Your task to perform on an android device: Toggle the flashlight Image 0: 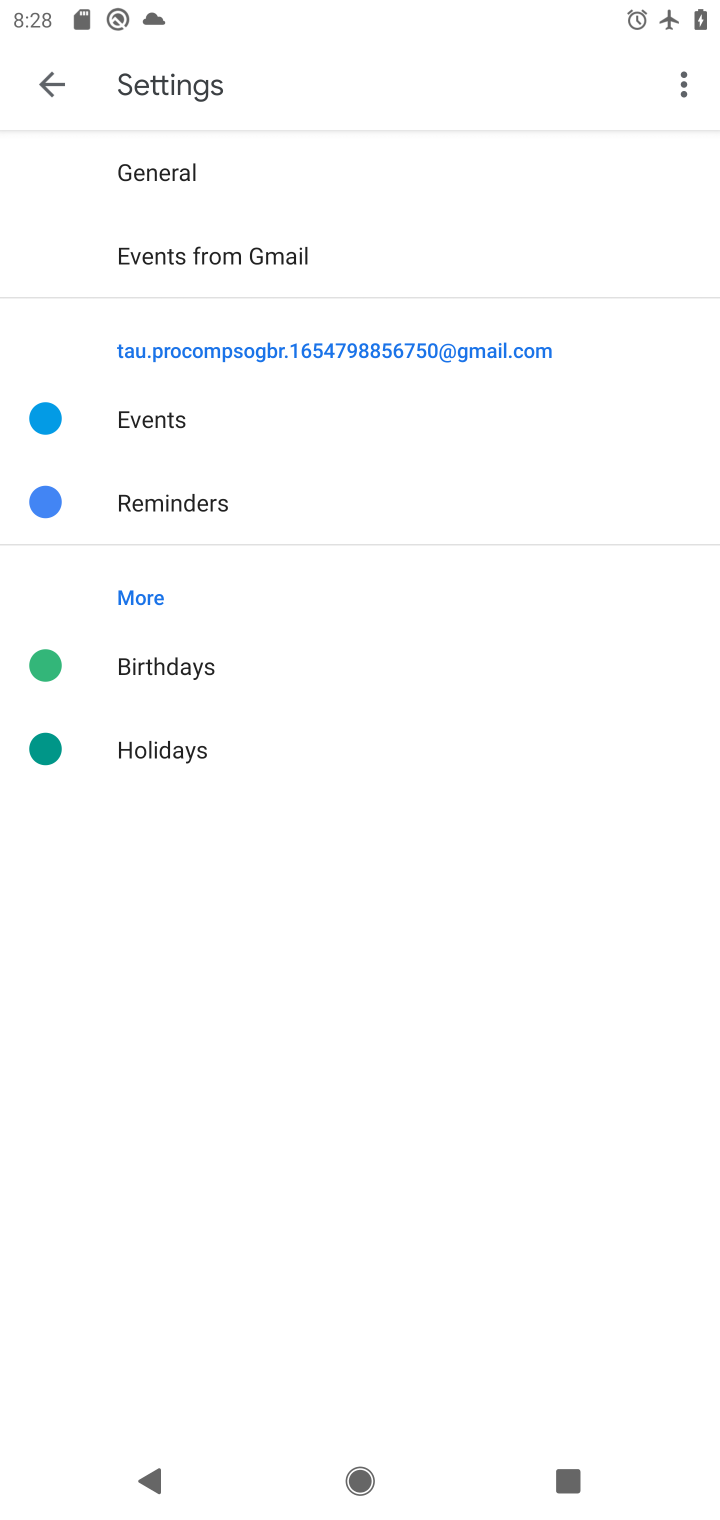
Step 0: press home button
Your task to perform on an android device: Toggle the flashlight Image 1: 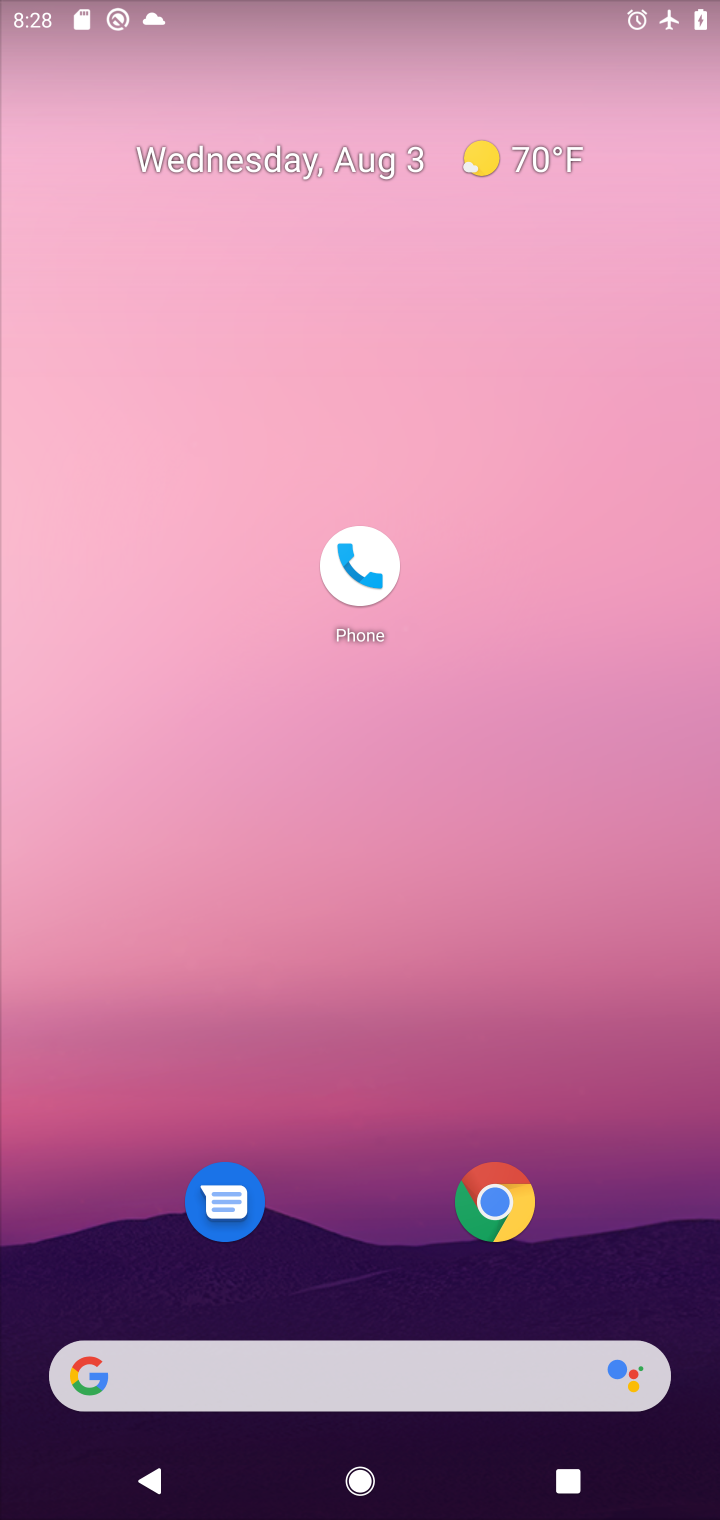
Step 1: drag from (329, 1389) to (439, 43)
Your task to perform on an android device: Toggle the flashlight Image 2: 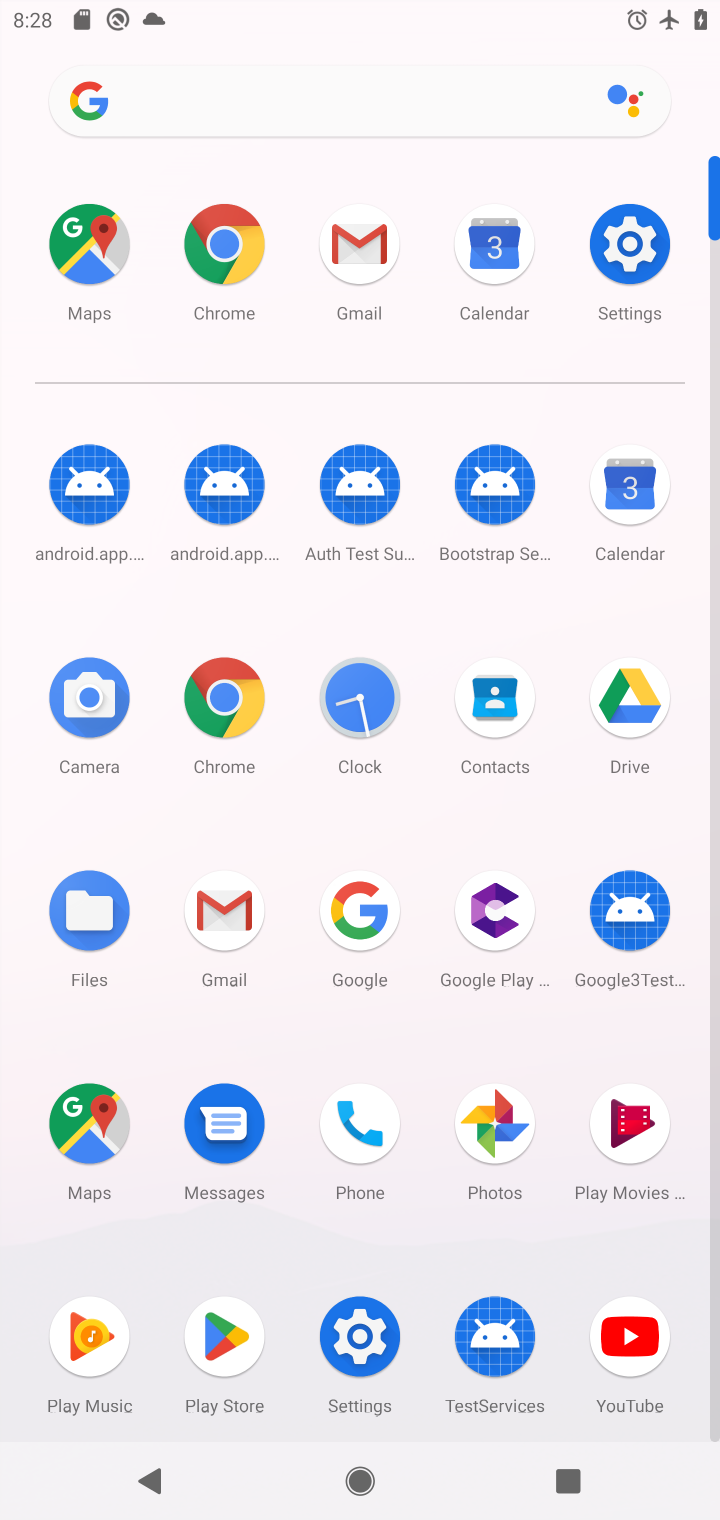
Step 2: click (627, 245)
Your task to perform on an android device: Toggle the flashlight Image 3: 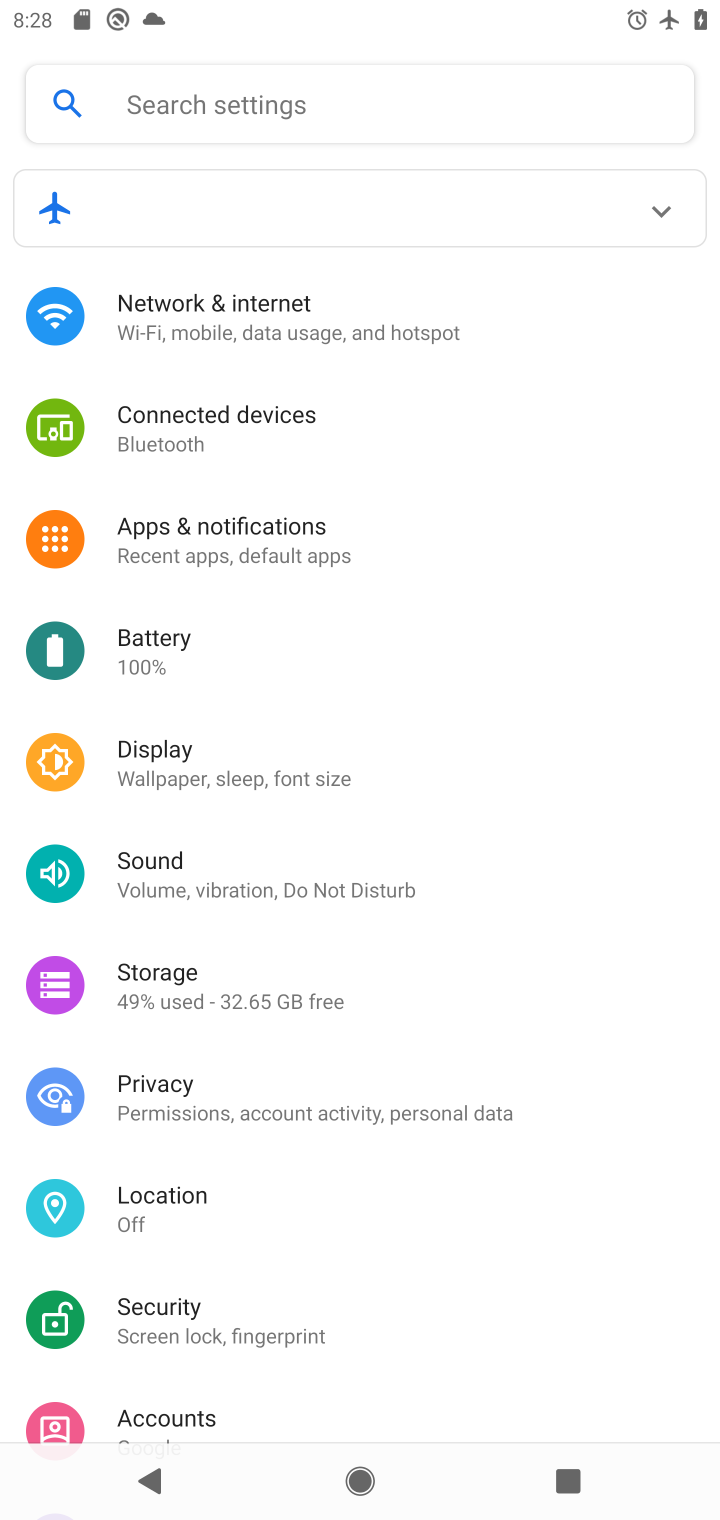
Step 3: click (232, 759)
Your task to perform on an android device: Toggle the flashlight Image 4: 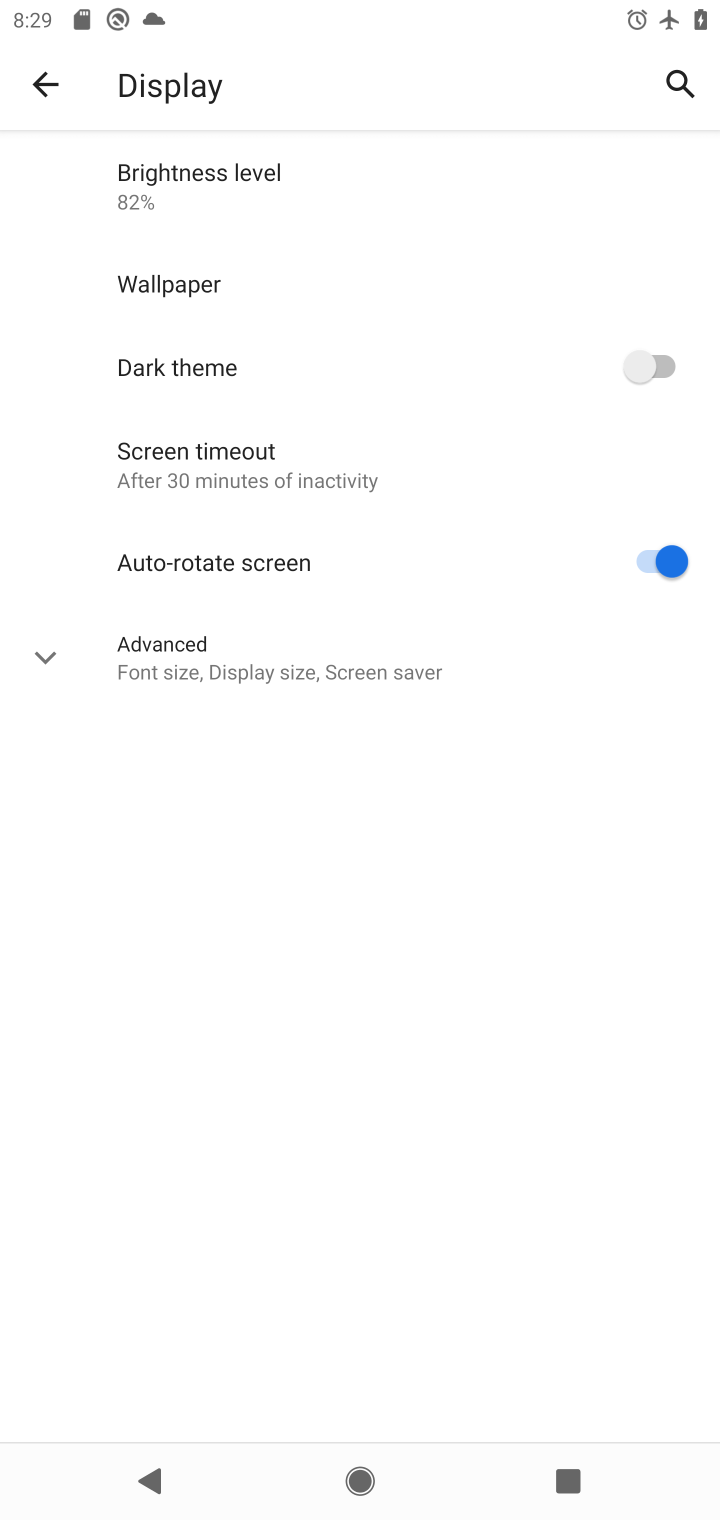
Step 4: click (30, 84)
Your task to perform on an android device: Toggle the flashlight Image 5: 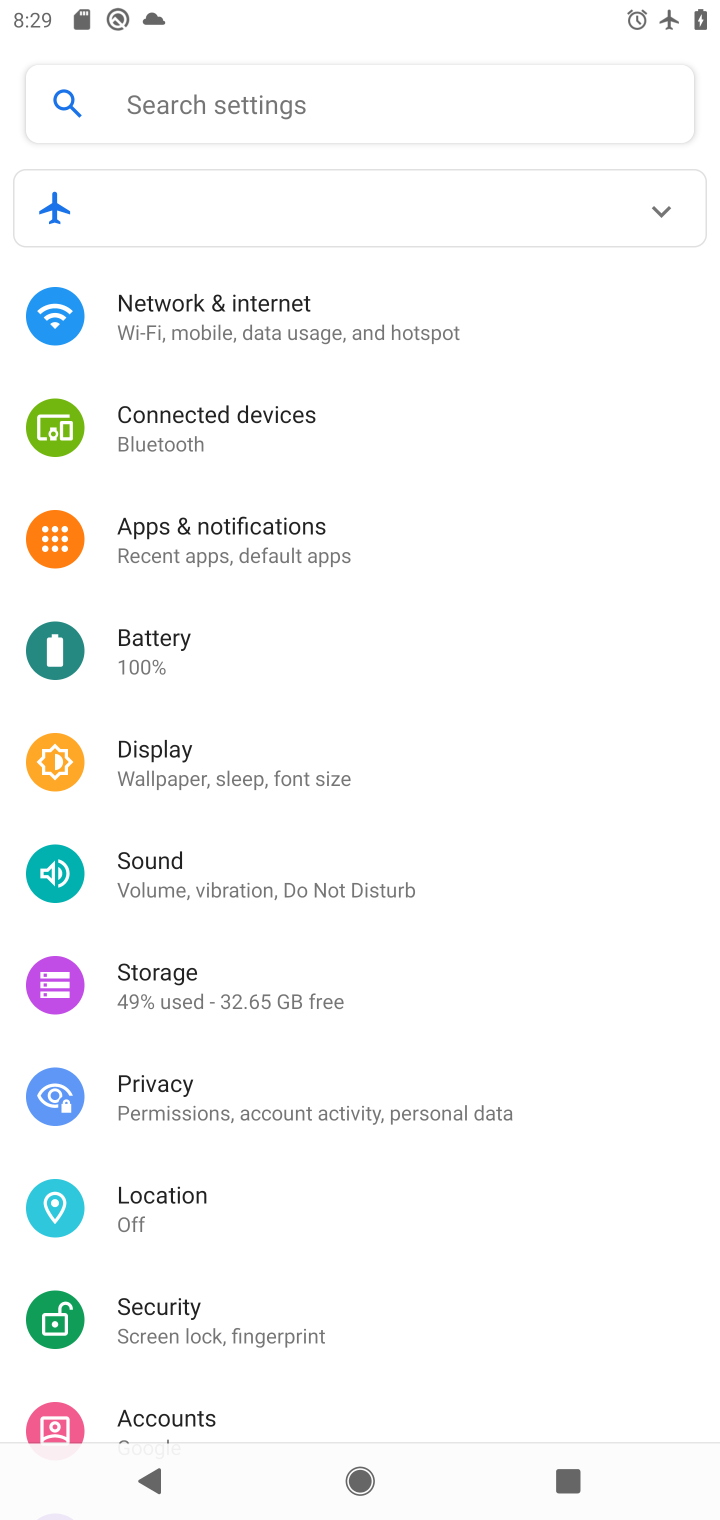
Step 5: click (260, 892)
Your task to perform on an android device: Toggle the flashlight Image 6: 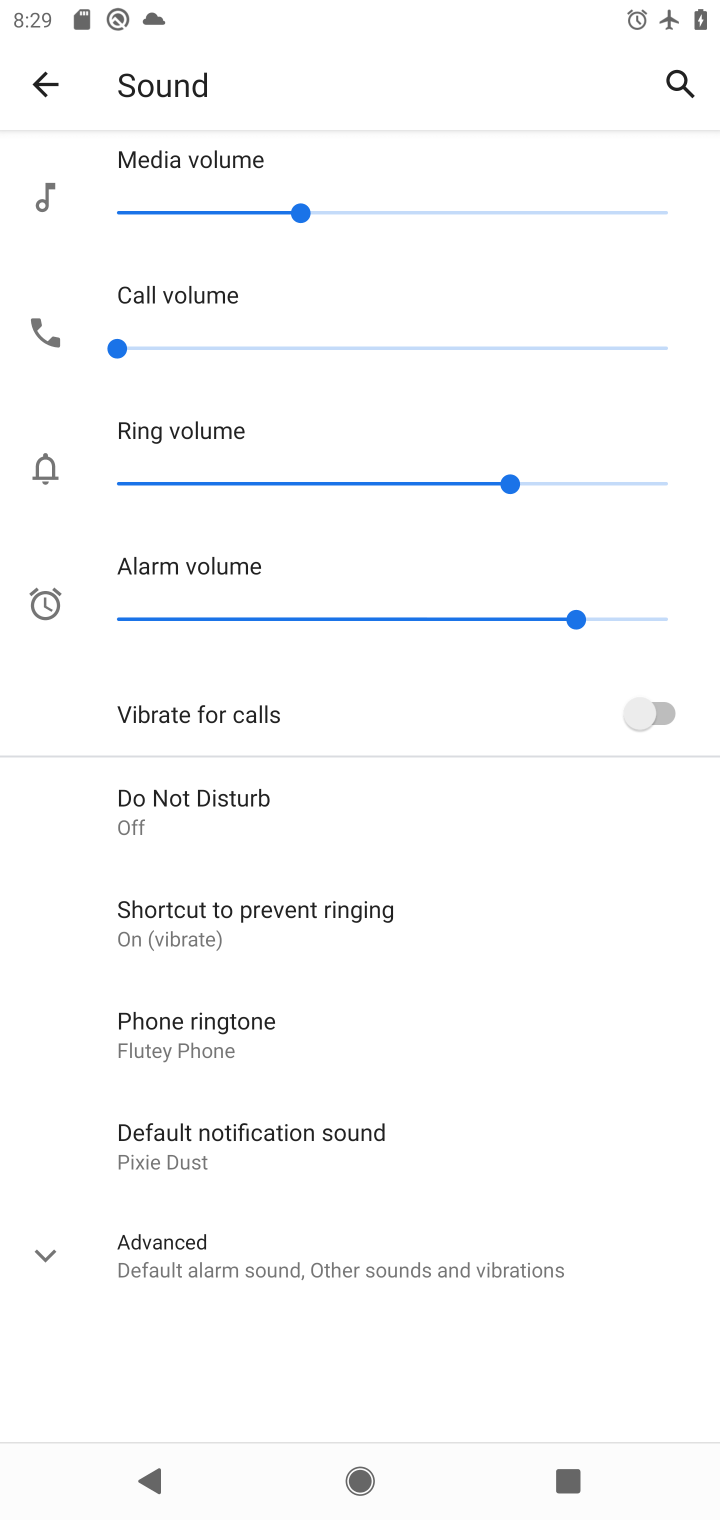
Step 6: click (51, 91)
Your task to perform on an android device: Toggle the flashlight Image 7: 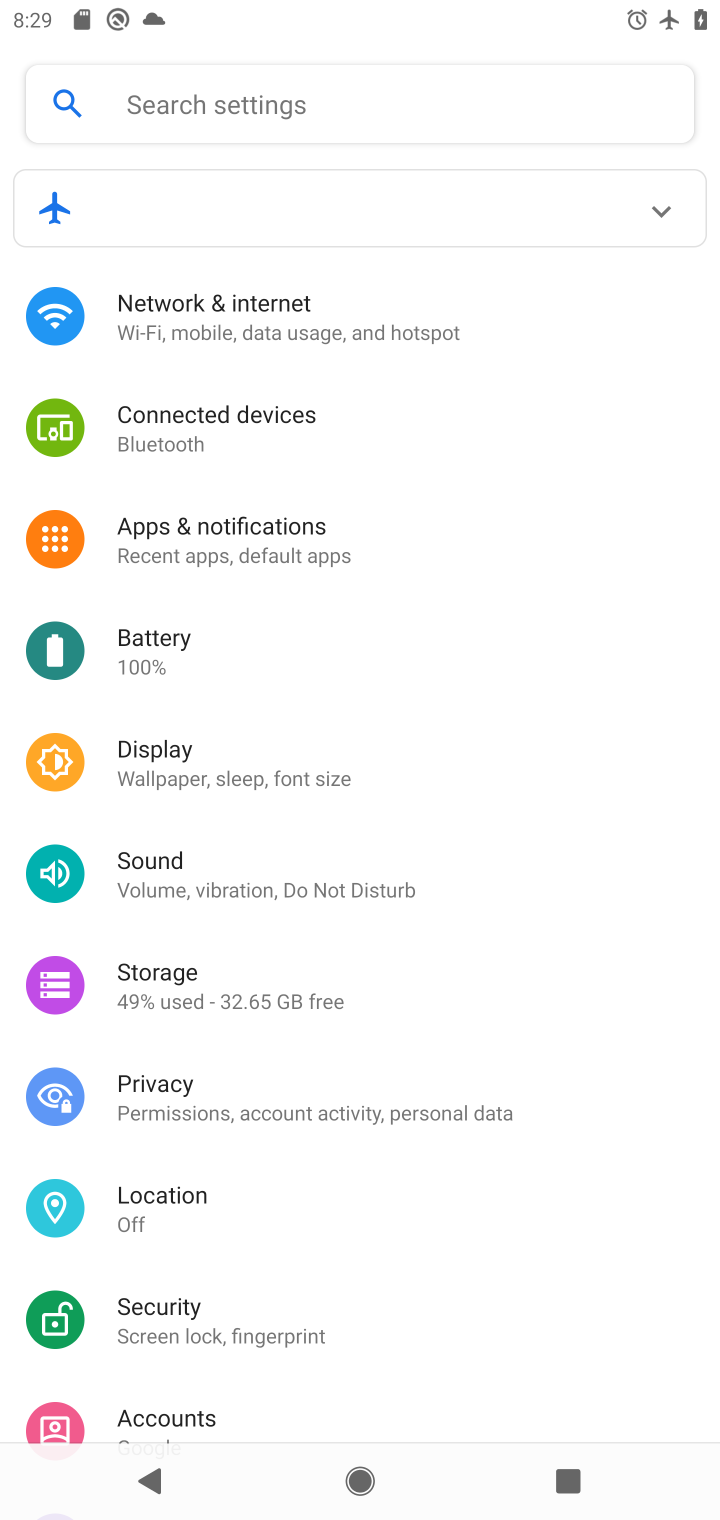
Step 7: click (476, 95)
Your task to perform on an android device: Toggle the flashlight Image 8: 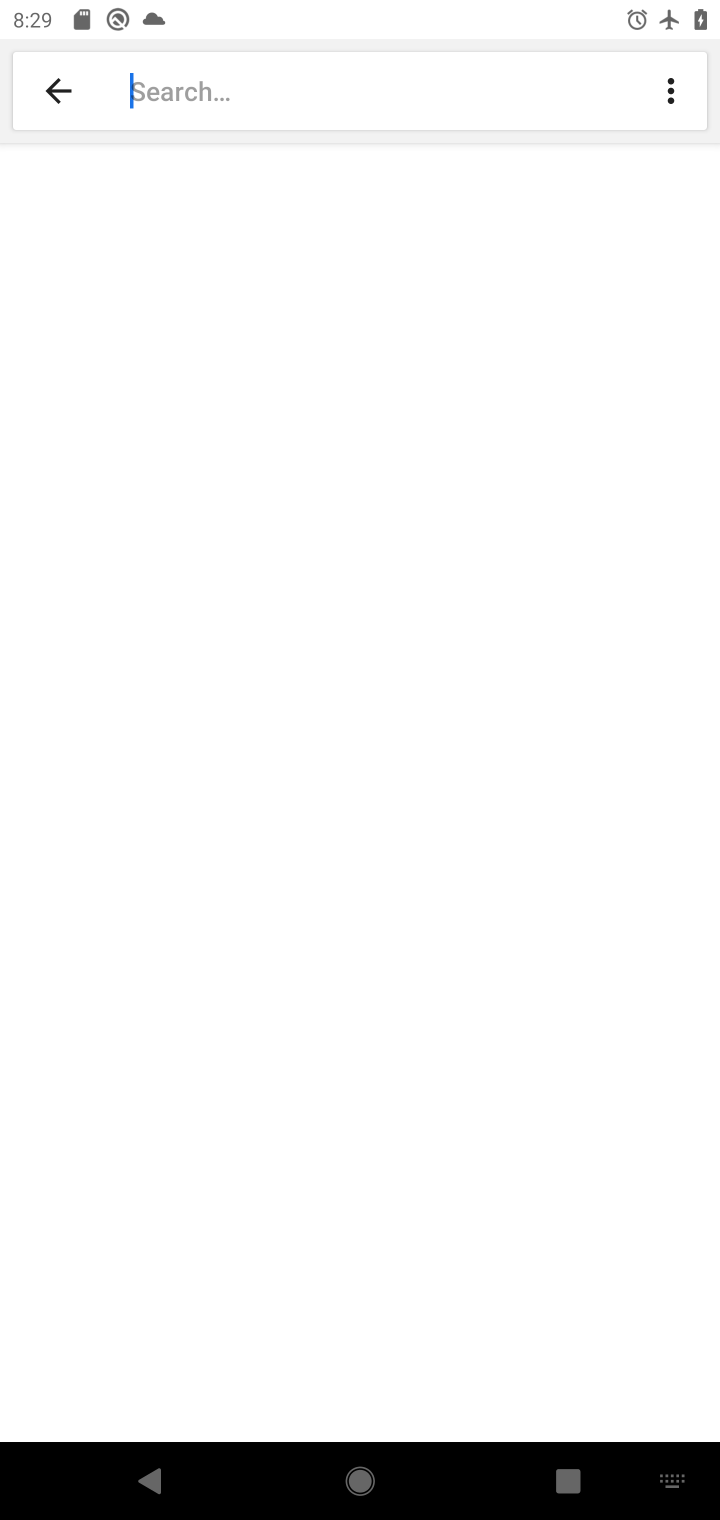
Step 8: type "flashlight"
Your task to perform on an android device: Toggle the flashlight Image 9: 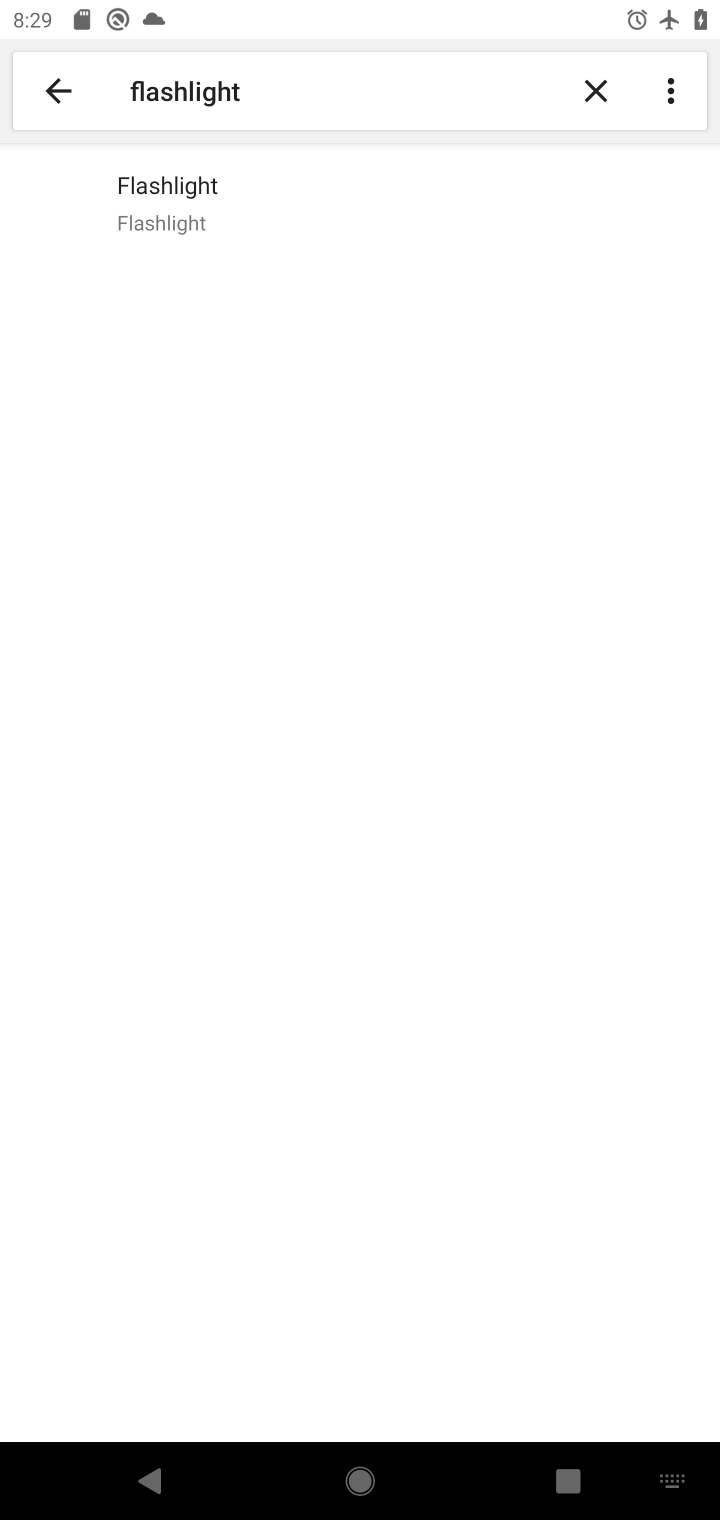
Step 9: click (147, 214)
Your task to perform on an android device: Toggle the flashlight Image 10: 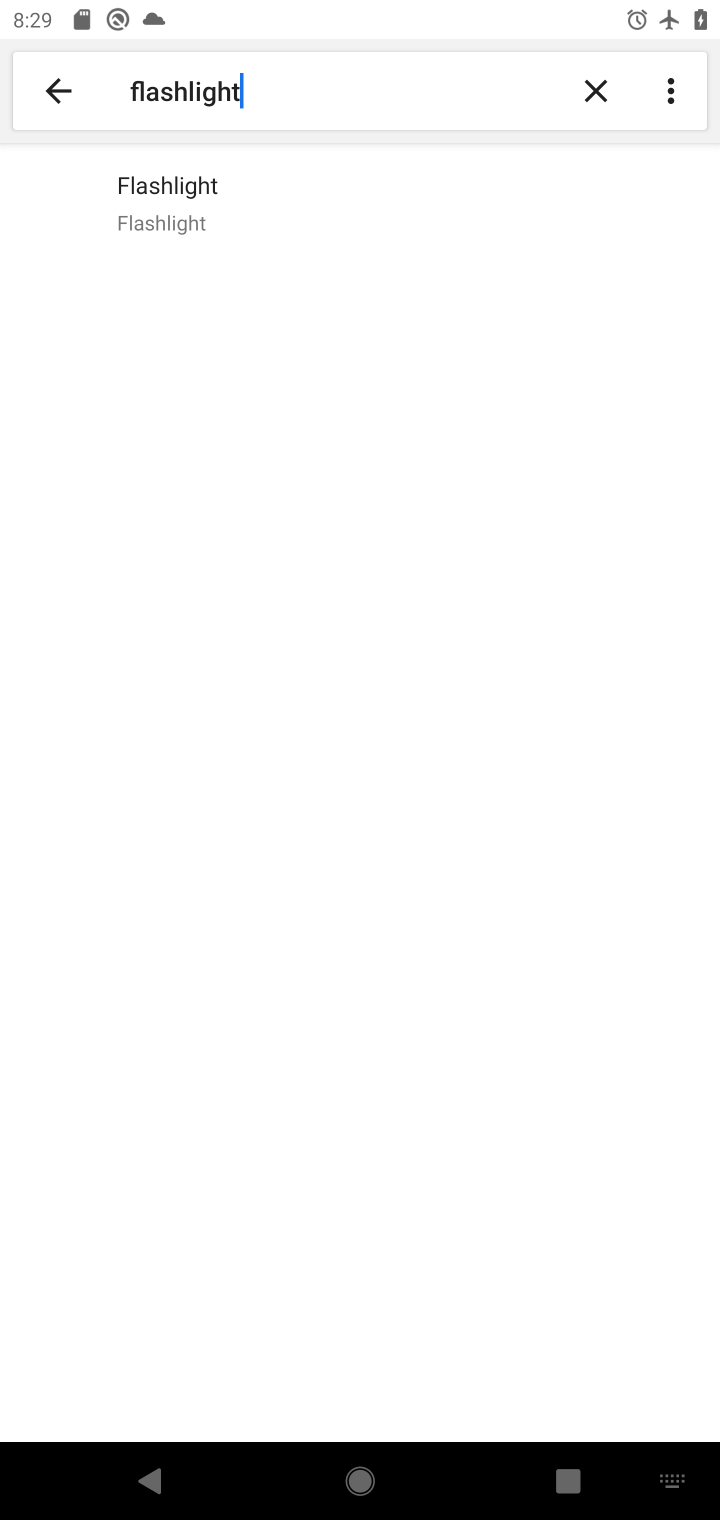
Step 10: task complete